Your task to perform on an android device: Clear all items from cart on amazon. Add logitech g pro to the cart on amazon, then select checkout. Image 0: 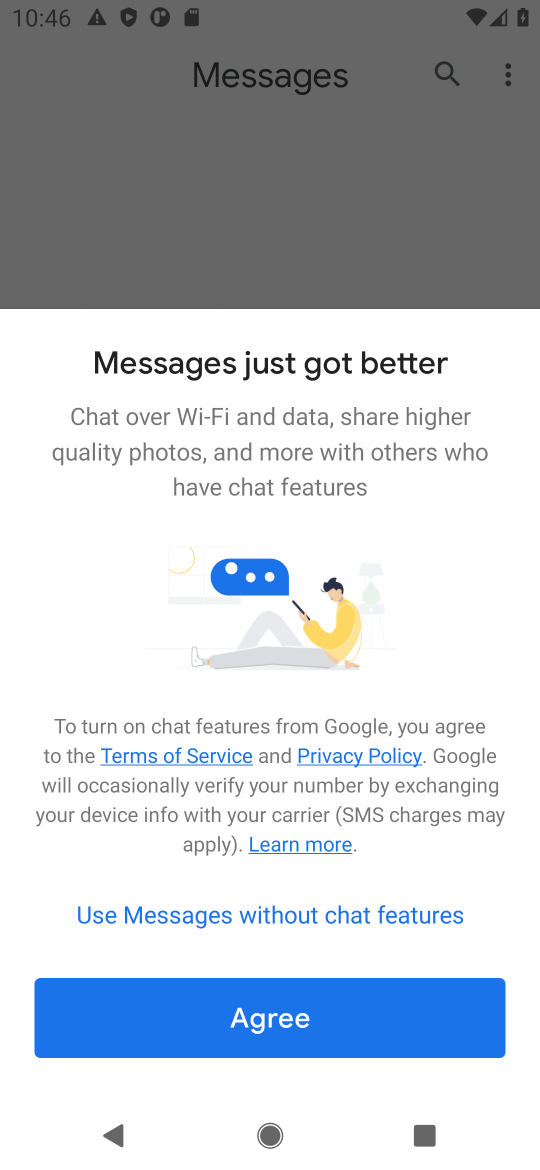
Step 0: task complete